Your task to perform on an android device: Open Google Chrome and open the bookmarks view Image 0: 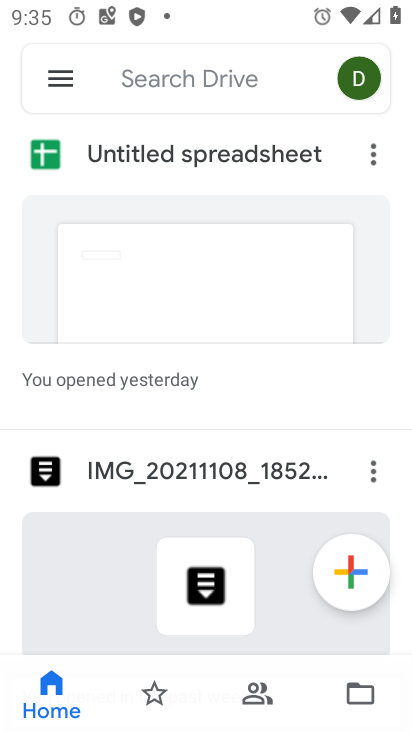
Step 0: press home button
Your task to perform on an android device: Open Google Chrome and open the bookmarks view Image 1: 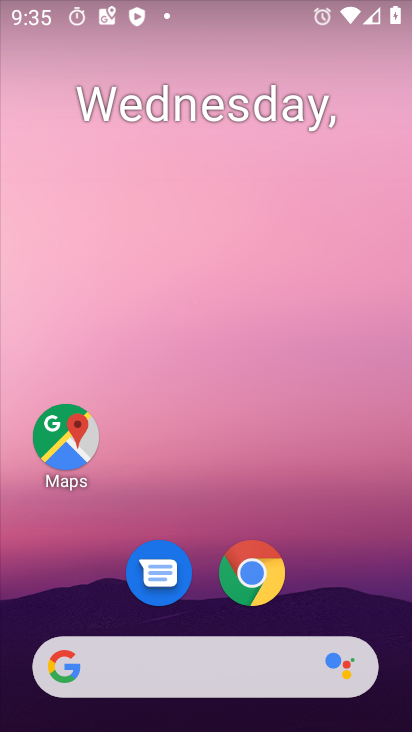
Step 1: drag from (318, 634) to (322, 17)
Your task to perform on an android device: Open Google Chrome and open the bookmarks view Image 2: 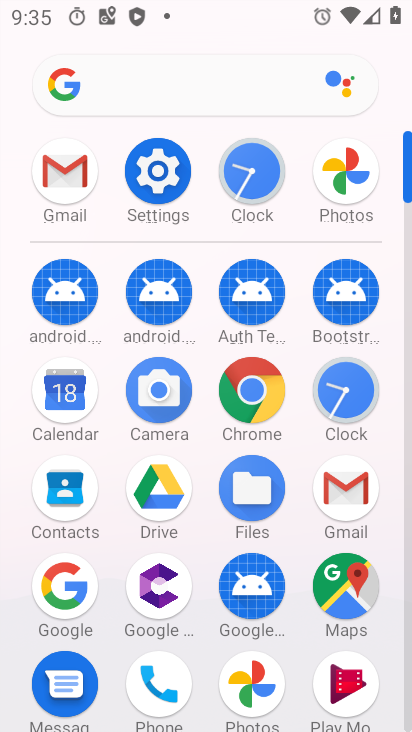
Step 2: click (278, 414)
Your task to perform on an android device: Open Google Chrome and open the bookmarks view Image 3: 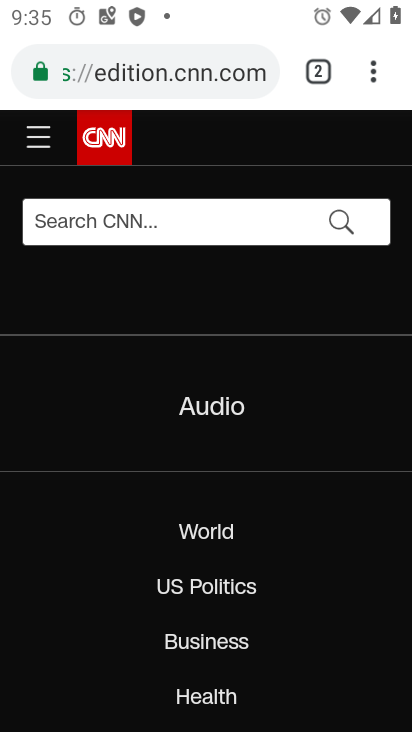
Step 3: click (374, 81)
Your task to perform on an android device: Open Google Chrome and open the bookmarks view Image 4: 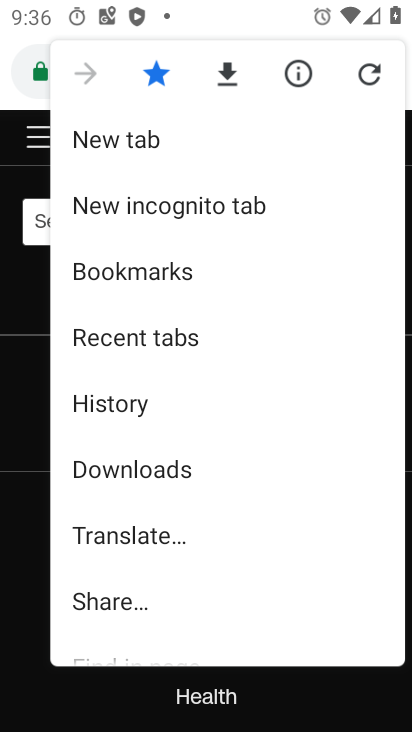
Step 4: click (223, 272)
Your task to perform on an android device: Open Google Chrome and open the bookmarks view Image 5: 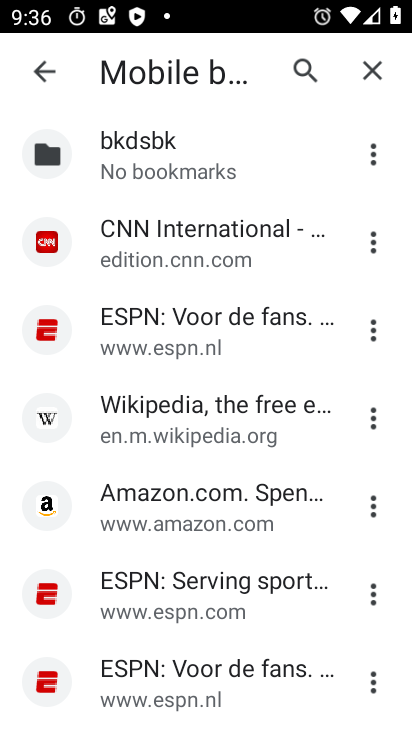
Step 5: task complete